Your task to perform on an android device: Go to ESPN.com Image 0: 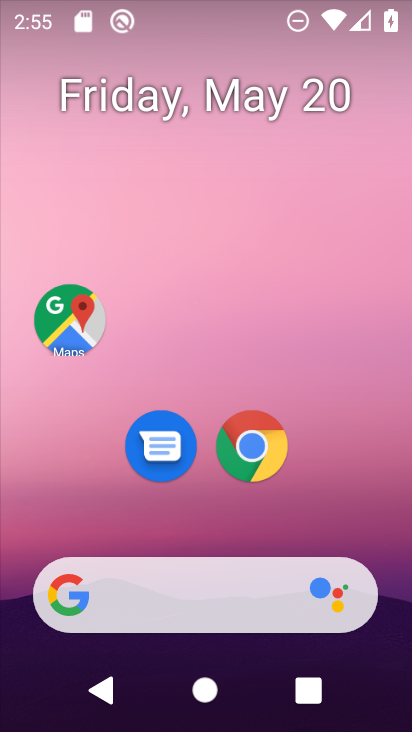
Step 0: click (252, 445)
Your task to perform on an android device: Go to ESPN.com Image 1: 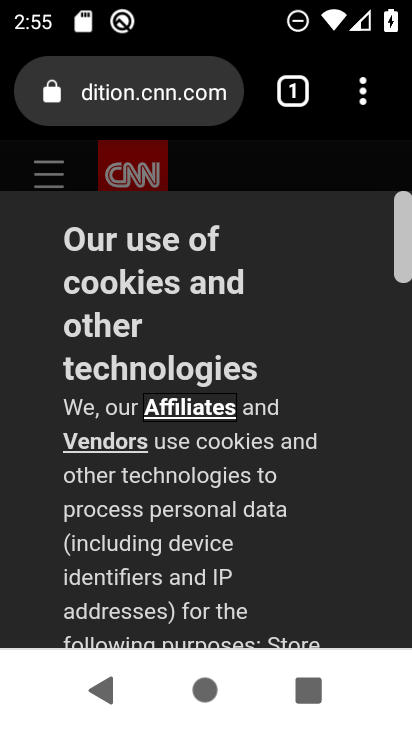
Step 1: click (98, 92)
Your task to perform on an android device: Go to ESPN.com Image 2: 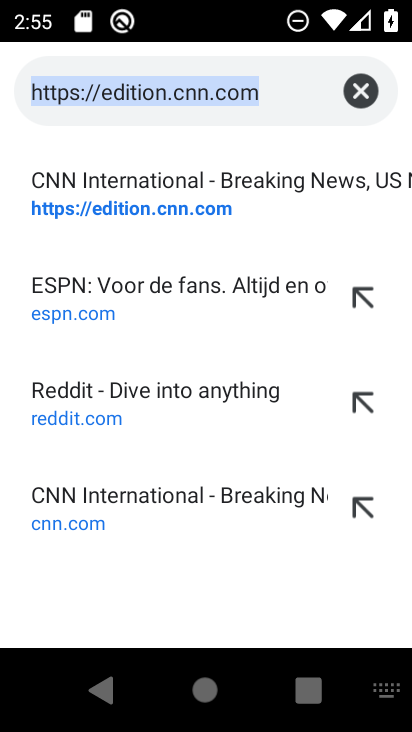
Step 2: click (90, 284)
Your task to perform on an android device: Go to ESPN.com Image 3: 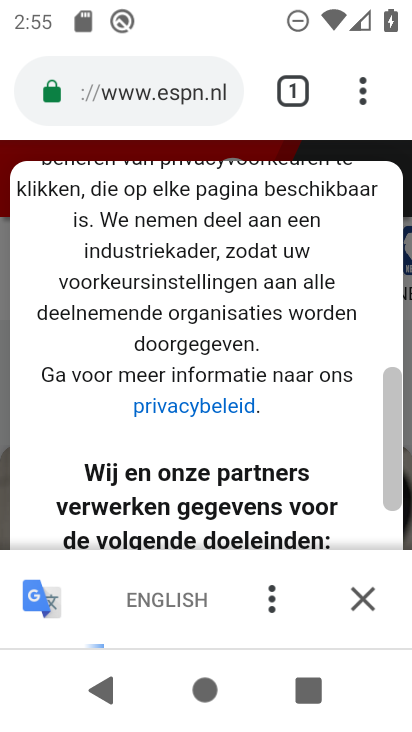
Step 3: task complete